Your task to perform on an android device: Turn off the flashlight Image 0: 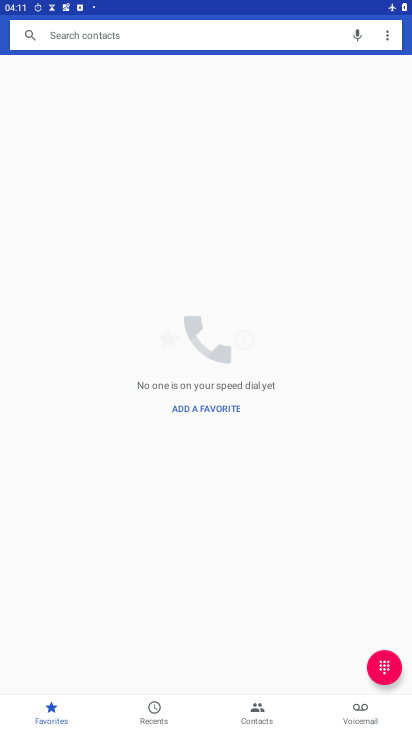
Step 0: press home button
Your task to perform on an android device: Turn off the flashlight Image 1: 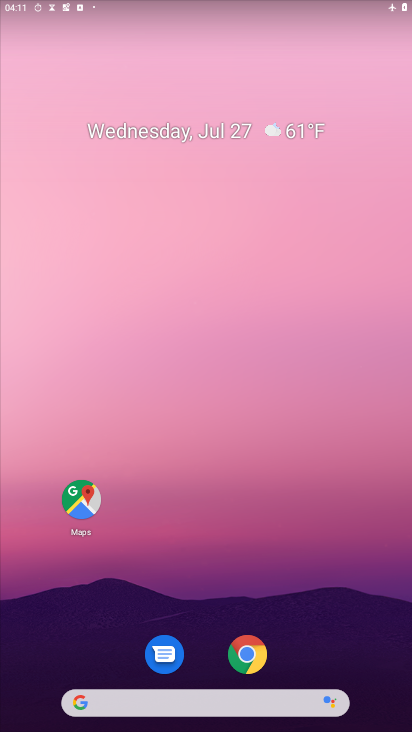
Step 1: task complete